Your task to perform on an android device: check data usage Image 0: 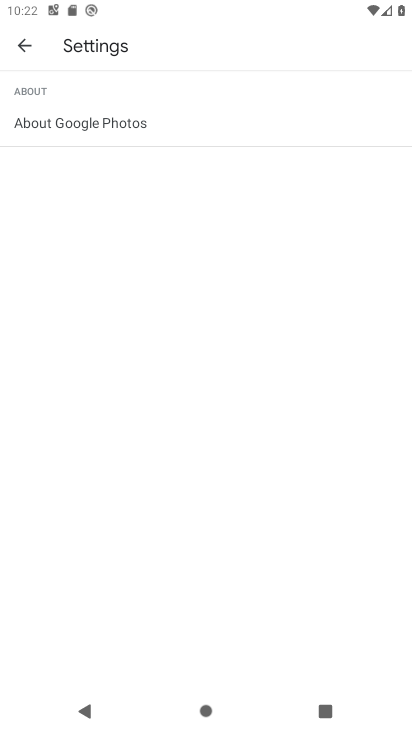
Step 0: press home button
Your task to perform on an android device: check data usage Image 1: 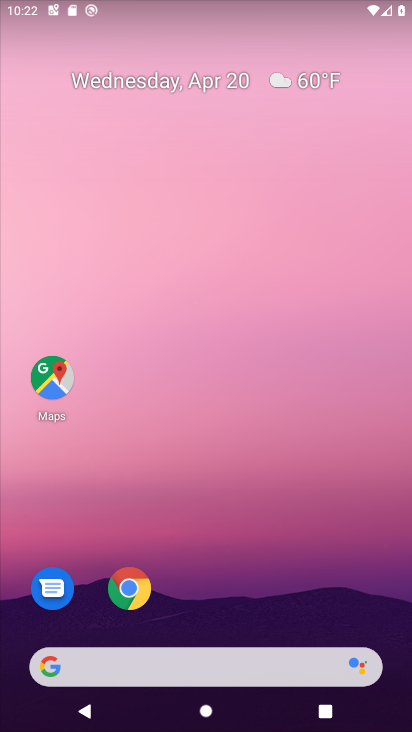
Step 1: drag from (222, 586) to (108, 27)
Your task to perform on an android device: check data usage Image 2: 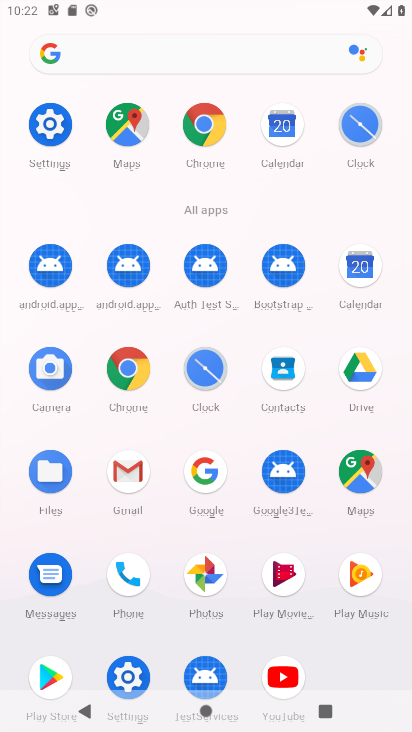
Step 2: click (52, 161)
Your task to perform on an android device: check data usage Image 3: 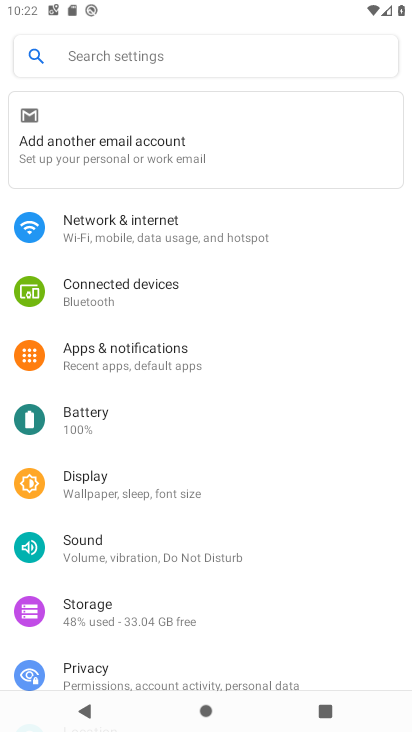
Step 3: click (96, 216)
Your task to perform on an android device: check data usage Image 4: 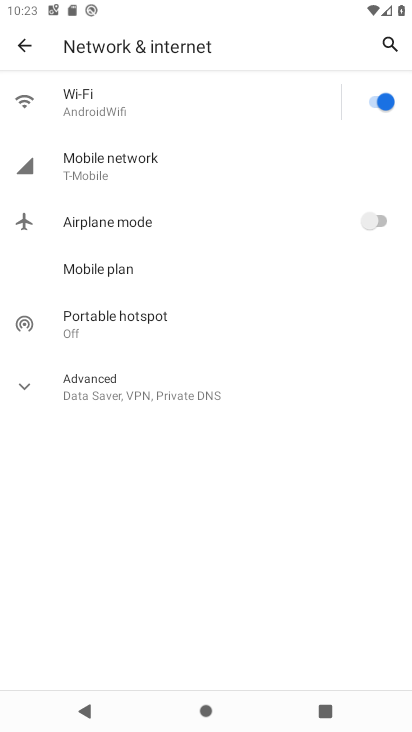
Step 4: task complete